Your task to perform on an android device: What's the weather going to be tomorrow? Image 0: 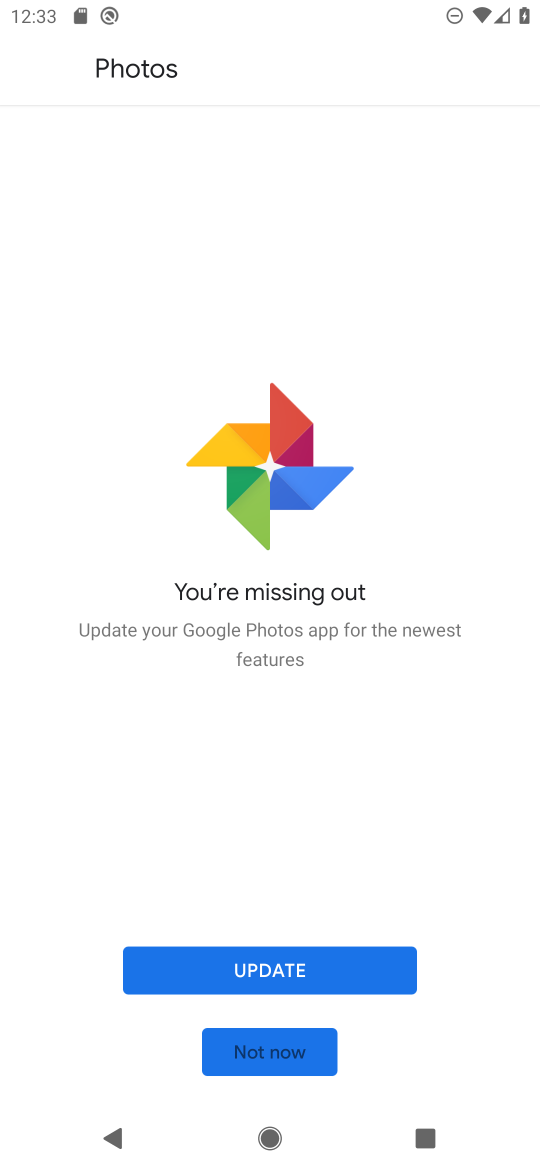
Step 0: press home button
Your task to perform on an android device: What's the weather going to be tomorrow? Image 1: 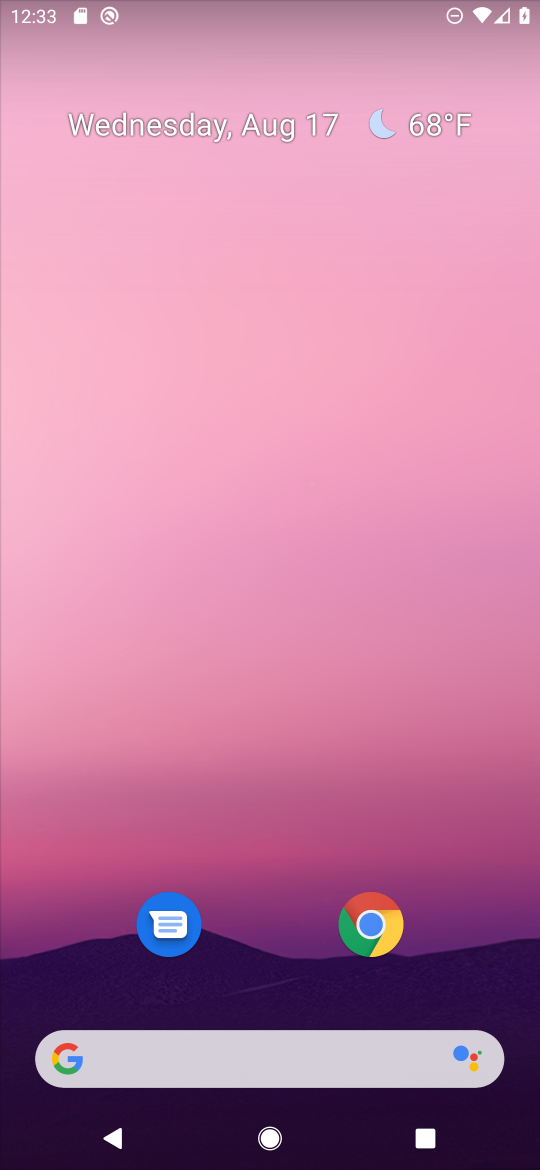
Step 1: click (416, 124)
Your task to perform on an android device: What's the weather going to be tomorrow? Image 2: 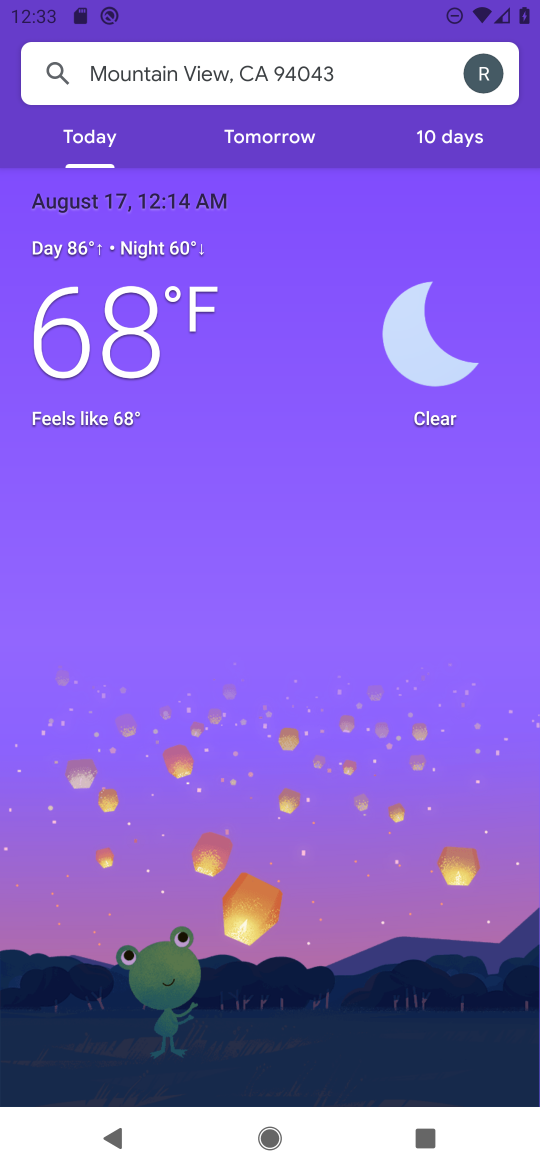
Step 2: click (272, 159)
Your task to perform on an android device: What's the weather going to be tomorrow? Image 3: 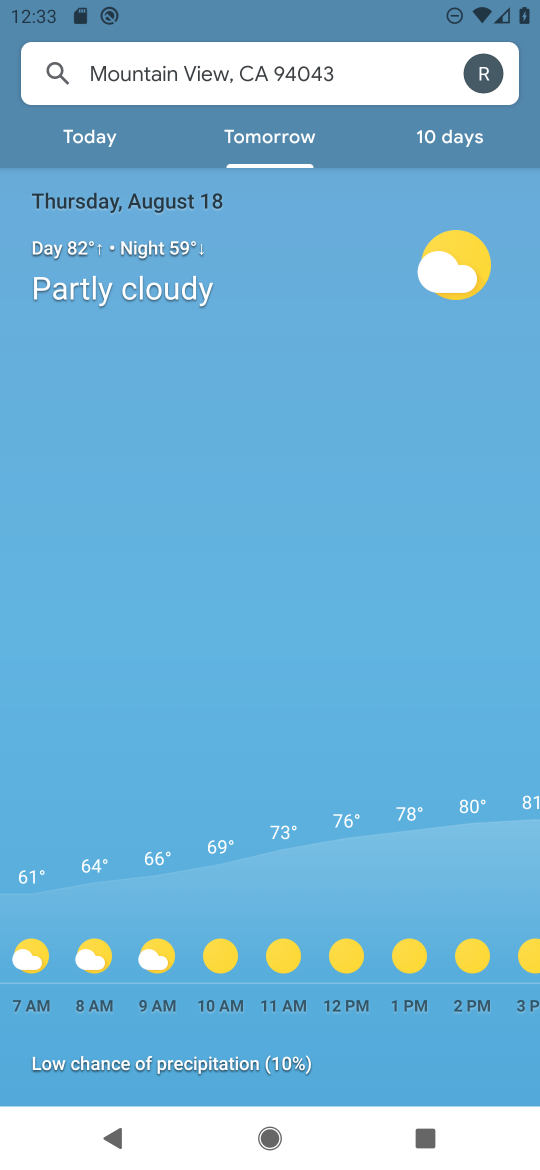
Step 3: task complete